Your task to perform on an android device: Search for sushi restaurants on Maps Image 0: 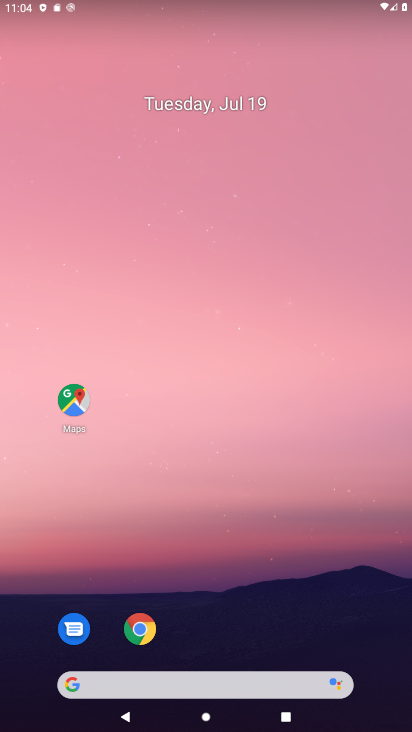
Step 0: drag from (332, 640) to (343, 121)
Your task to perform on an android device: Search for sushi restaurants on Maps Image 1: 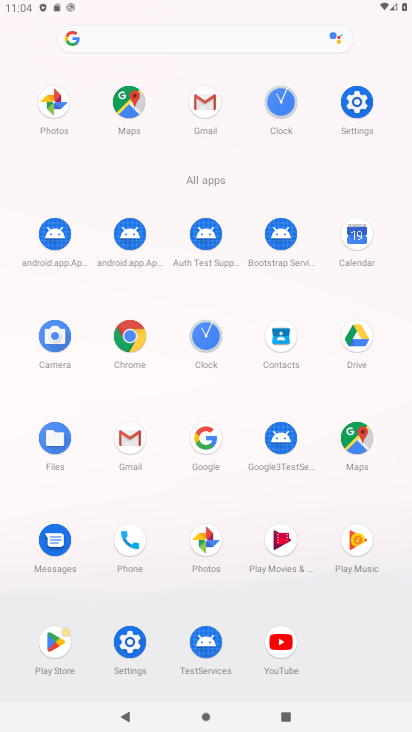
Step 1: click (349, 453)
Your task to perform on an android device: Search for sushi restaurants on Maps Image 2: 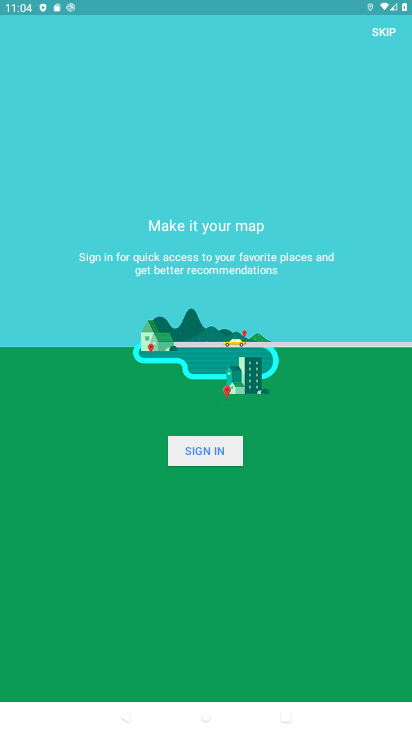
Step 2: click (383, 29)
Your task to perform on an android device: Search for sushi restaurants on Maps Image 3: 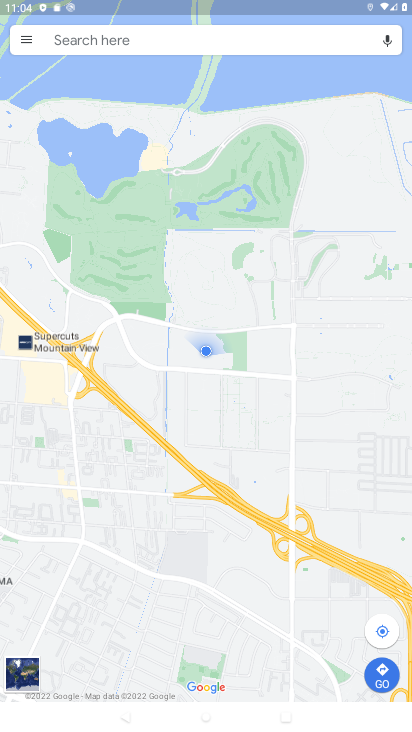
Step 3: click (117, 42)
Your task to perform on an android device: Search for sushi restaurants on Maps Image 4: 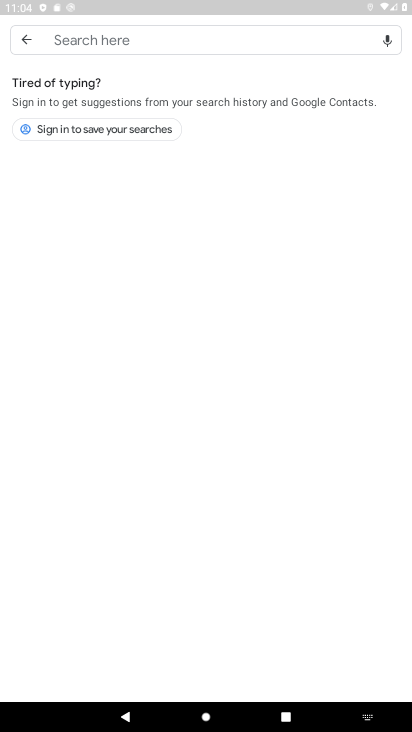
Step 4: type "sushi restaurants"
Your task to perform on an android device: Search for sushi restaurants on Maps Image 5: 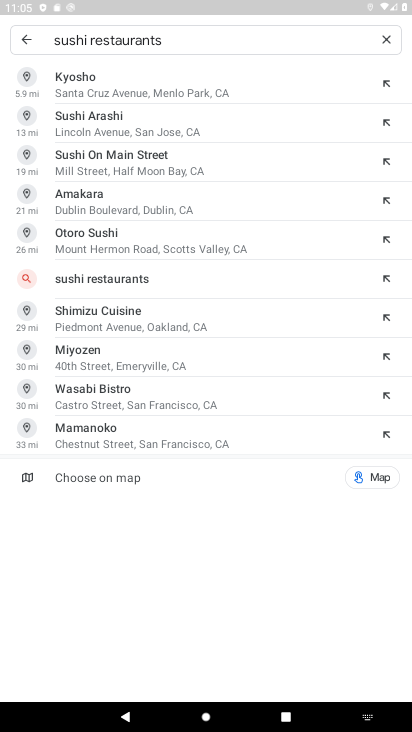
Step 5: click (229, 44)
Your task to perform on an android device: Search for sushi restaurants on Maps Image 6: 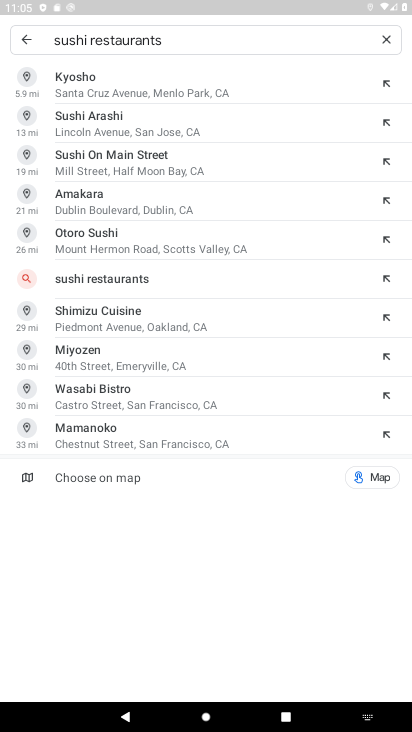
Step 6: click (233, 285)
Your task to perform on an android device: Search for sushi restaurants on Maps Image 7: 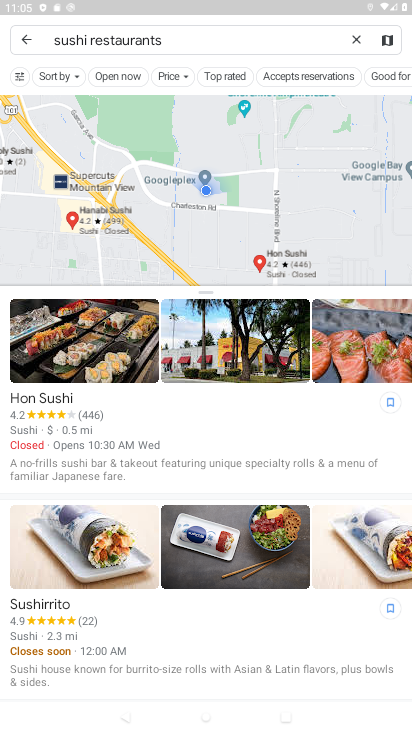
Step 7: task complete